Your task to perform on an android device: Open ESPN.com Image 0: 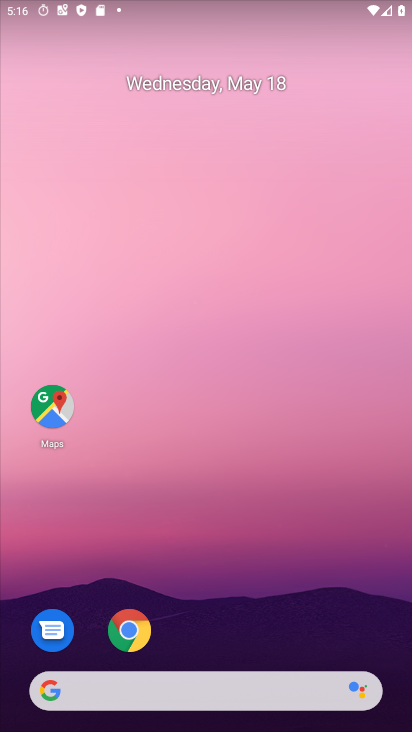
Step 0: click (133, 636)
Your task to perform on an android device: Open ESPN.com Image 1: 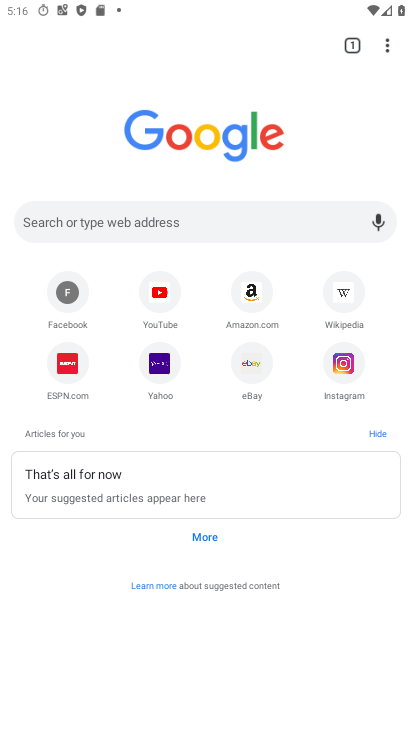
Step 1: click (64, 372)
Your task to perform on an android device: Open ESPN.com Image 2: 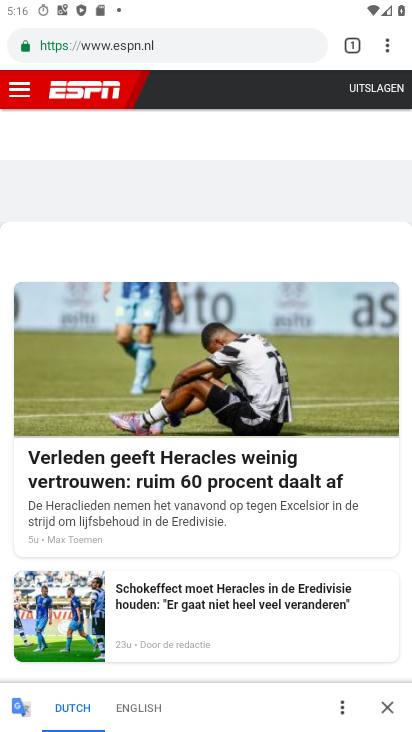
Step 2: task complete